Your task to perform on an android device: Search for usb-b on bestbuy, select the first entry, add it to the cart, then select checkout. Image 0: 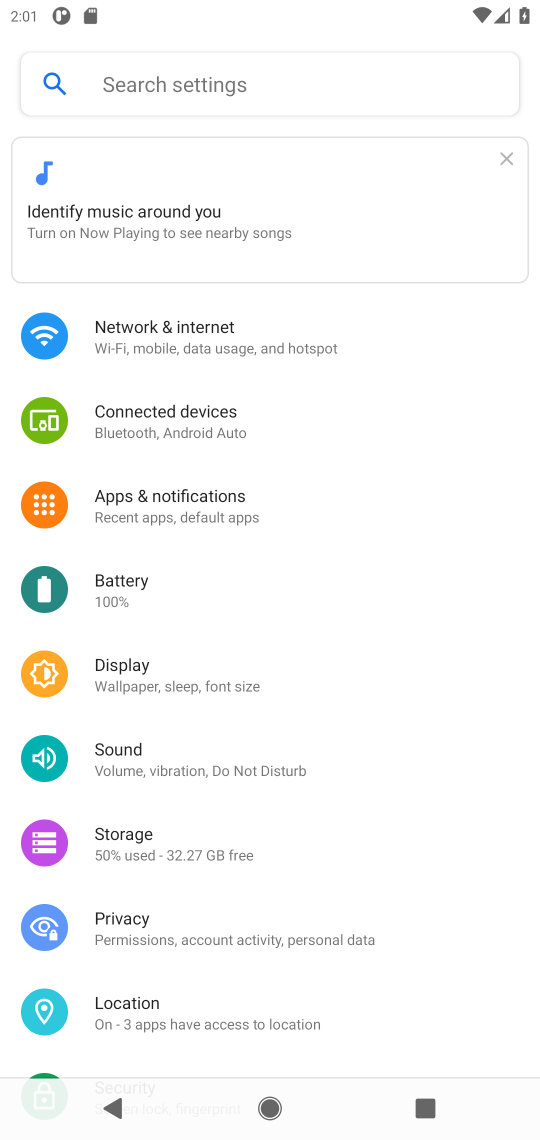
Step 0: press home button
Your task to perform on an android device: Search for usb-b on bestbuy, select the first entry, add it to the cart, then select checkout. Image 1: 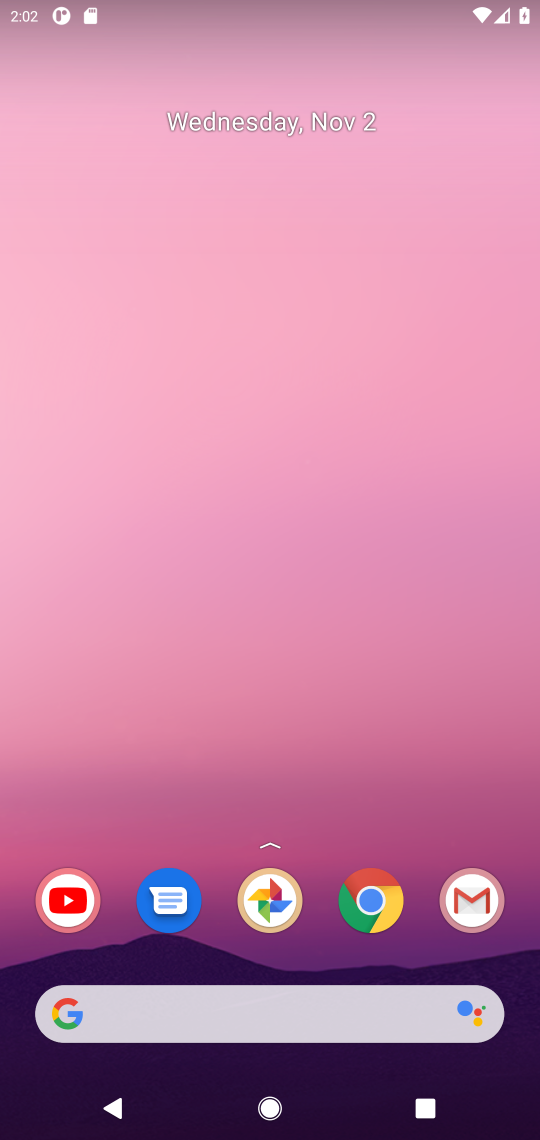
Step 1: click (383, 906)
Your task to perform on an android device: Search for usb-b on bestbuy, select the first entry, add it to the cart, then select checkout. Image 2: 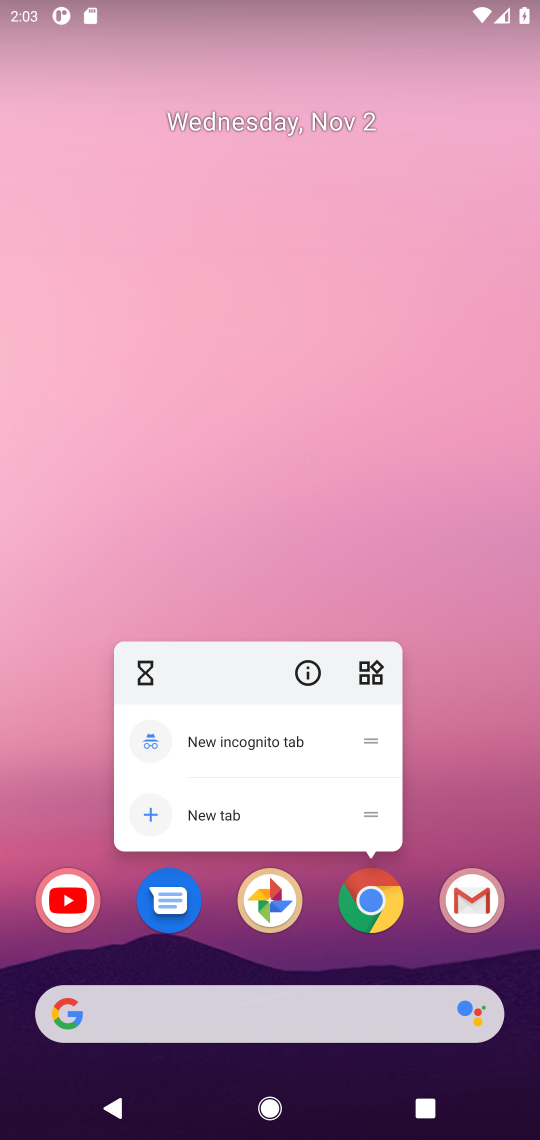
Step 2: click (376, 905)
Your task to perform on an android device: Search for usb-b on bestbuy, select the first entry, add it to the cart, then select checkout. Image 3: 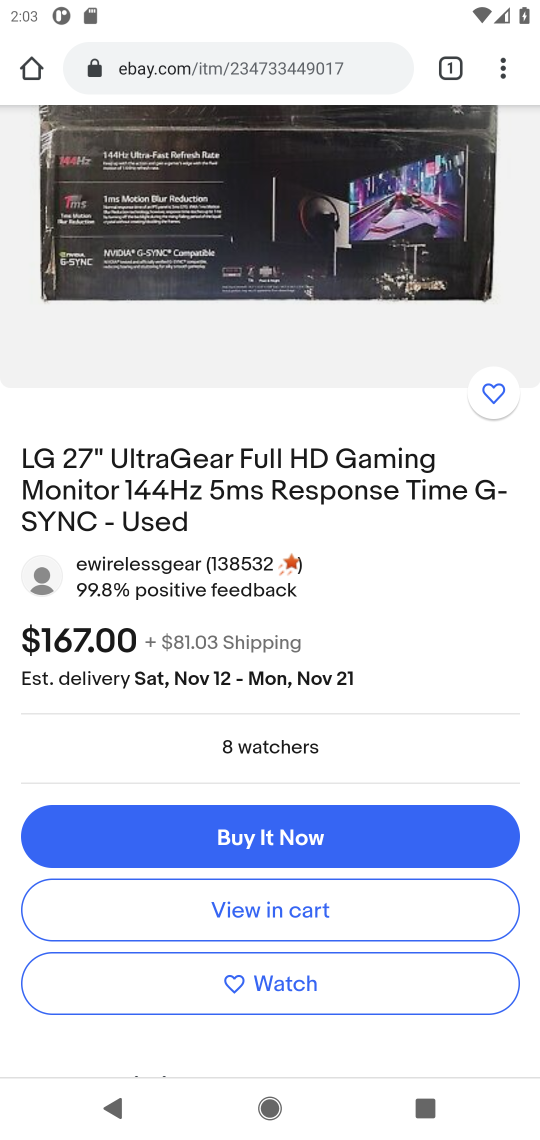
Step 3: click (251, 59)
Your task to perform on an android device: Search for usb-b on bestbuy, select the first entry, add it to the cart, then select checkout. Image 4: 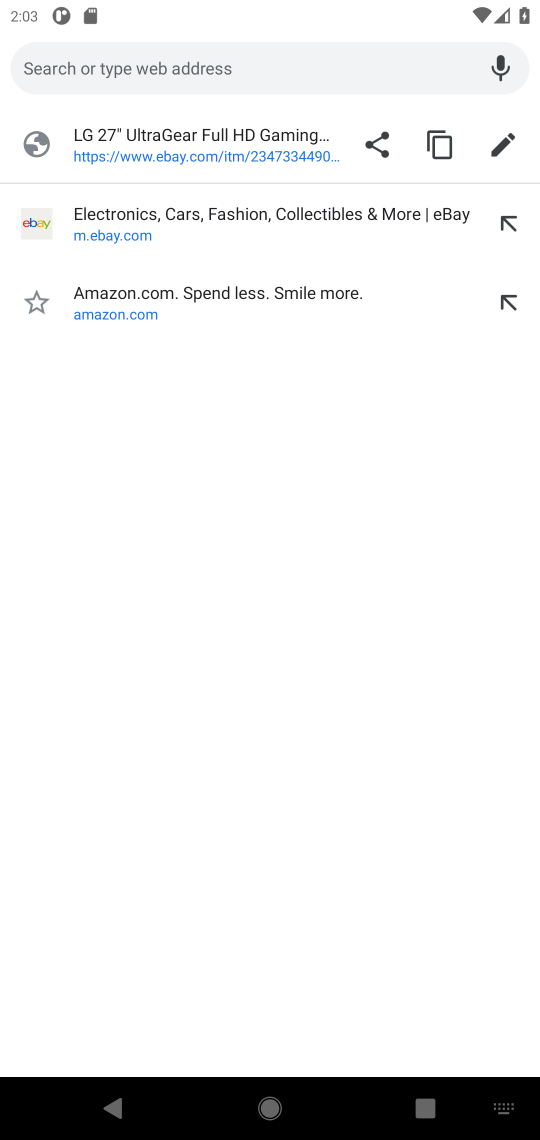
Step 4: type "bestbuy"
Your task to perform on an android device: Search for usb-b on bestbuy, select the first entry, add it to the cart, then select checkout. Image 5: 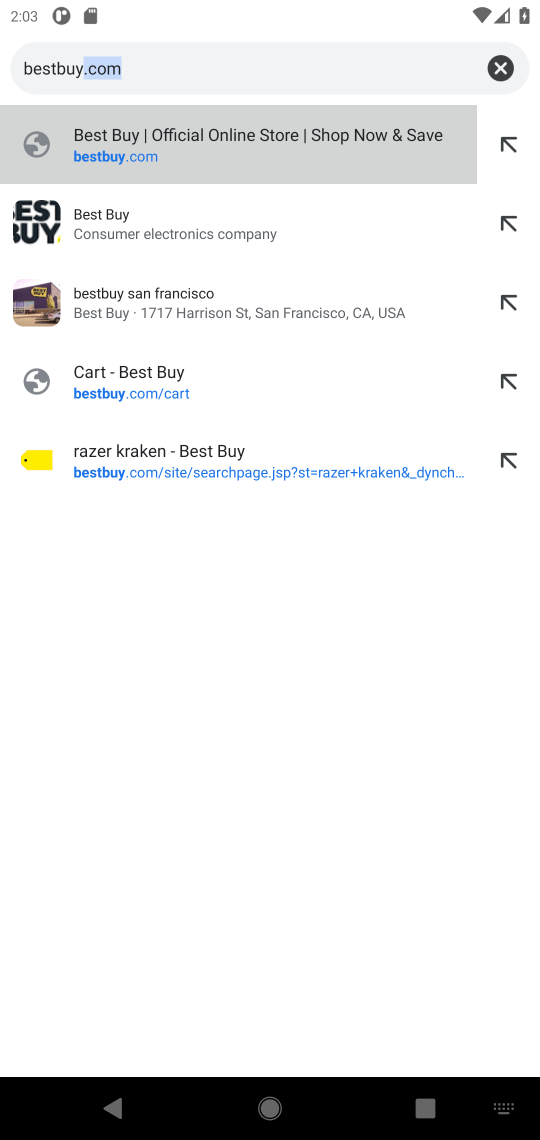
Step 5: click (84, 232)
Your task to perform on an android device: Search for usb-b on bestbuy, select the first entry, add it to the cart, then select checkout. Image 6: 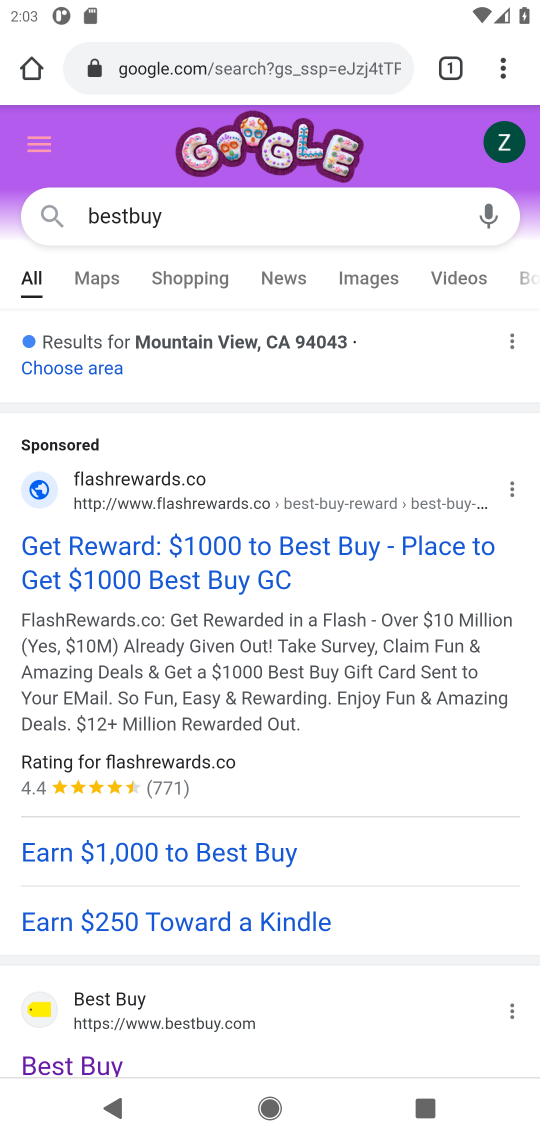
Step 6: drag from (213, 1001) to (201, 390)
Your task to perform on an android device: Search for usb-b on bestbuy, select the first entry, add it to the cart, then select checkout. Image 7: 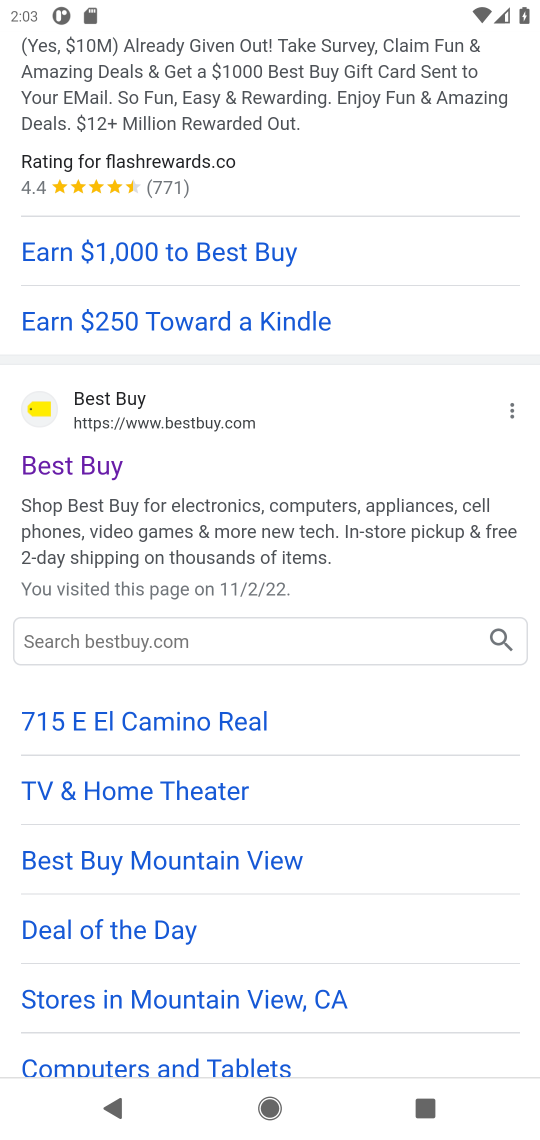
Step 7: click (73, 463)
Your task to perform on an android device: Search for usb-b on bestbuy, select the first entry, add it to the cart, then select checkout. Image 8: 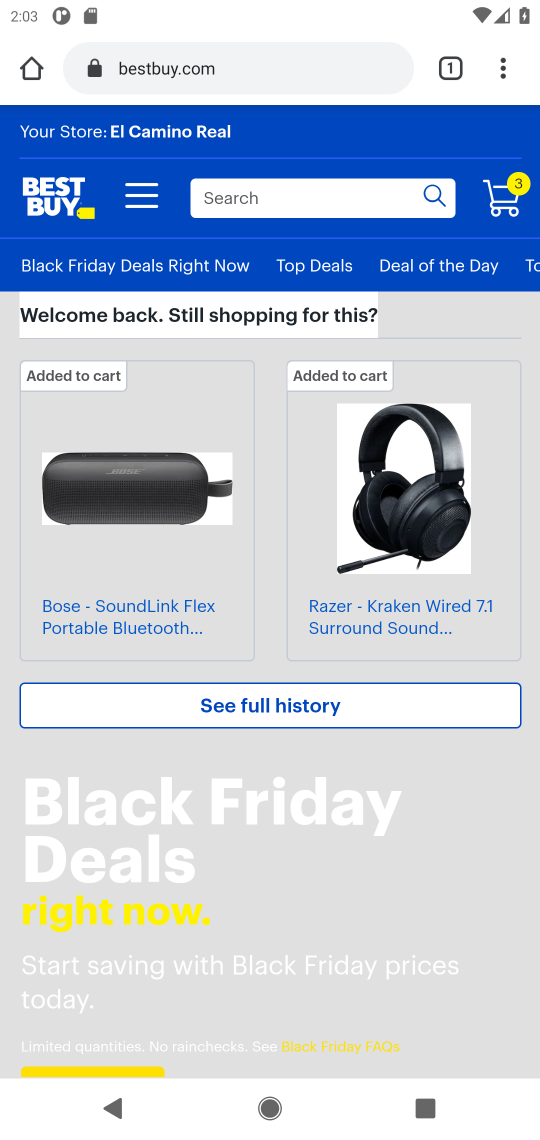
Step 8: click (265, 209)
Your task to perform on an android device: Search for usb-b on bestbuy, select the first entry, add it to the cart, then select checkout. Image 9: 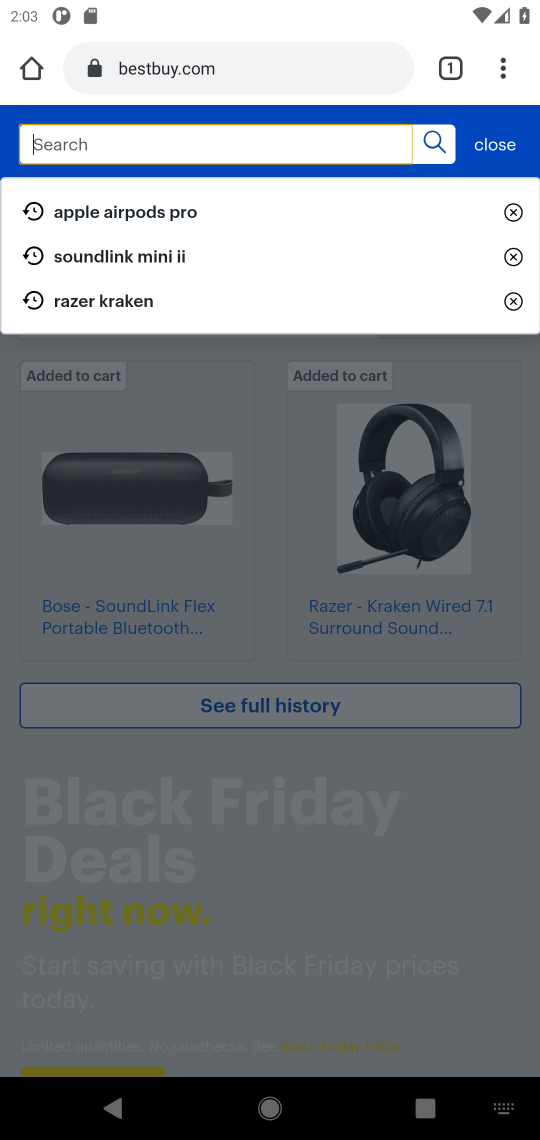
Step 9: type "usb - b"
Your task to perform on an android device: Search for usb-b on bestbuy, select the first entry, add it to the cart, then select checkout. Image 10: 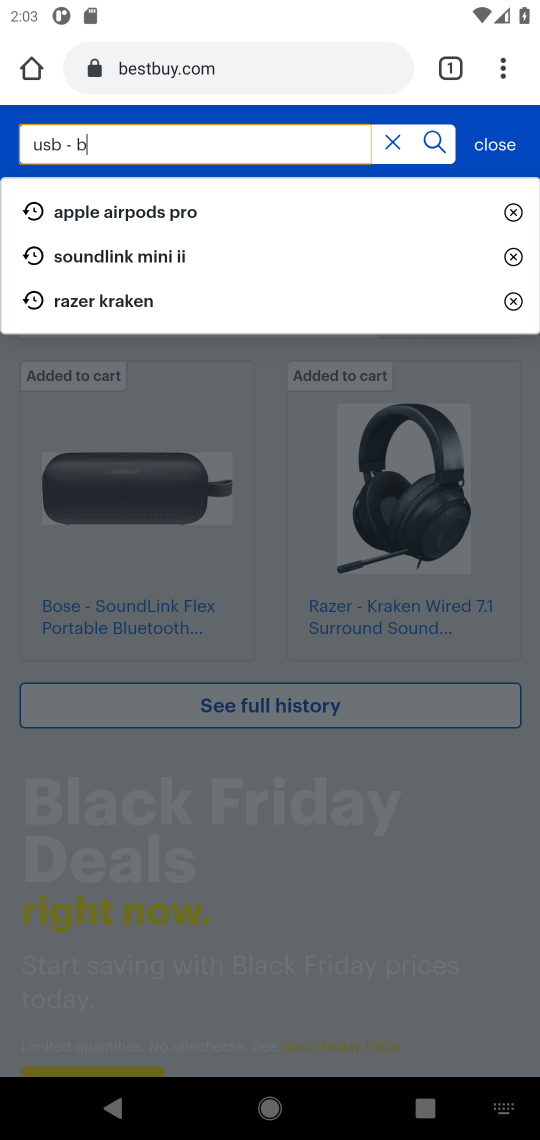
Step 10: type ""
Your task to perform on an android device: Search for usb-b on bestbuy, select the first entry, add it to the cart, then select checkout. Image 11: 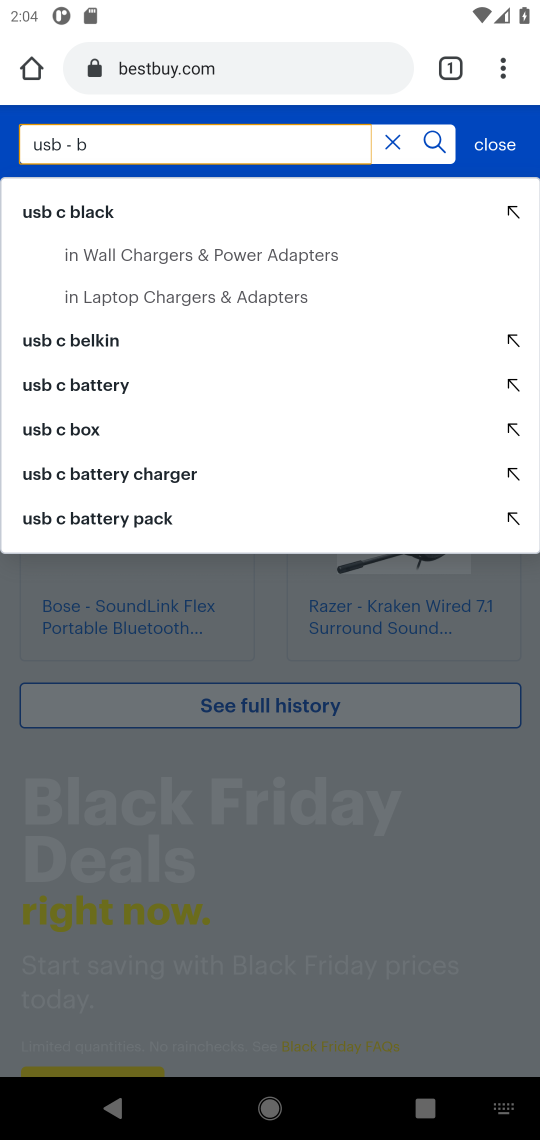
Step 11: click (43, 214)
Your task to perform on an android device: Search for usb-b on bestbuy, select the first entry, add it to the cart, then select checkout. Image 12: 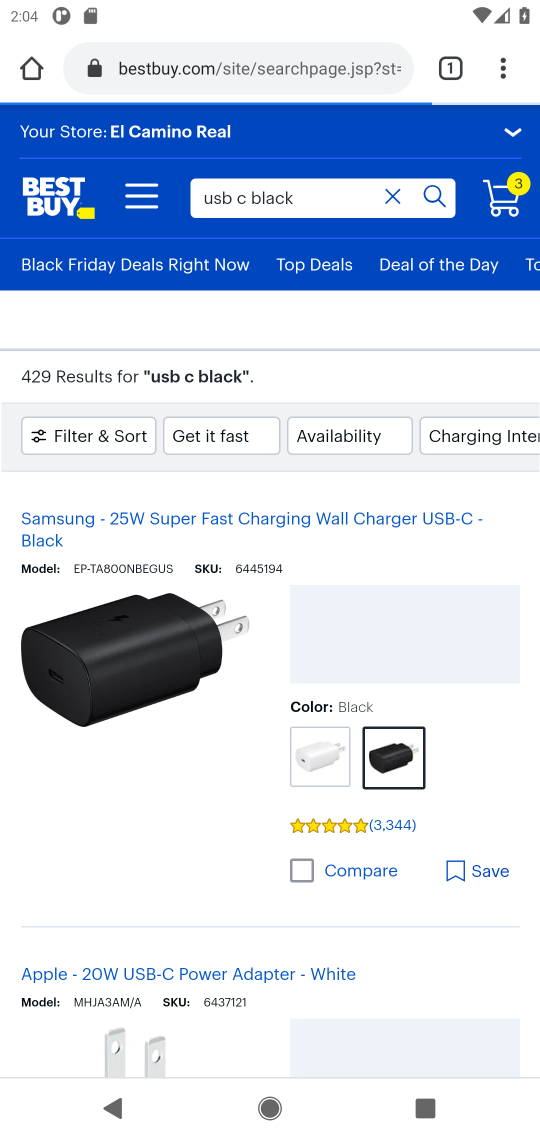
Step 12: drag from (152, 796) to (499, 186)
Your task to perform on an android device: Search for usb-b on bestbuy, select the first entry, add it to the cart, then select checkout. Image 13: 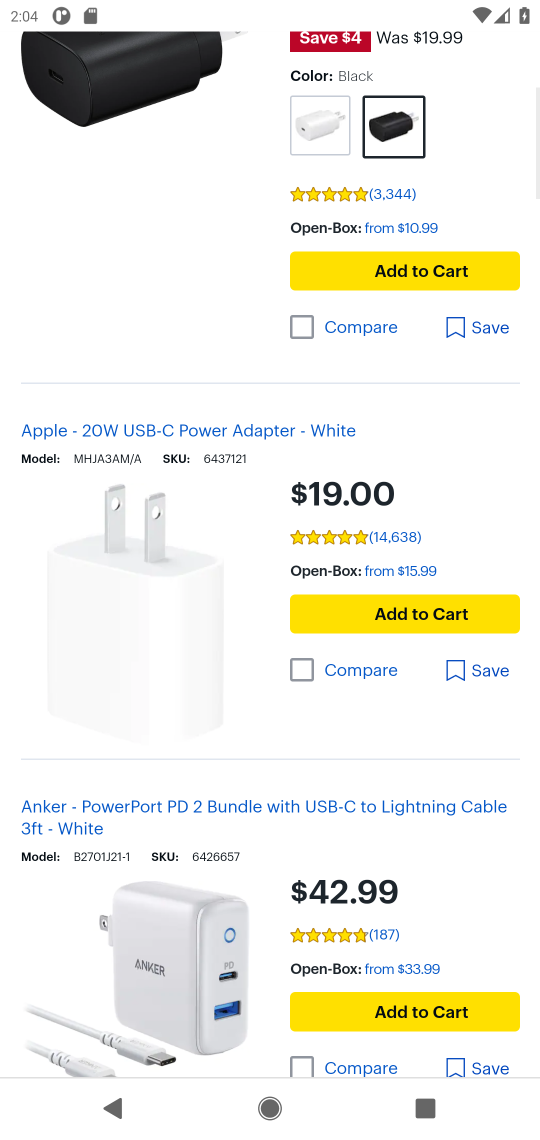
Step 13: drag from (339, 882) to (385, 75)
Your task to perform on an android device: Search for usb-b on bestbuy, select the first entry, add it to the cart, then select checkout. Image 14: 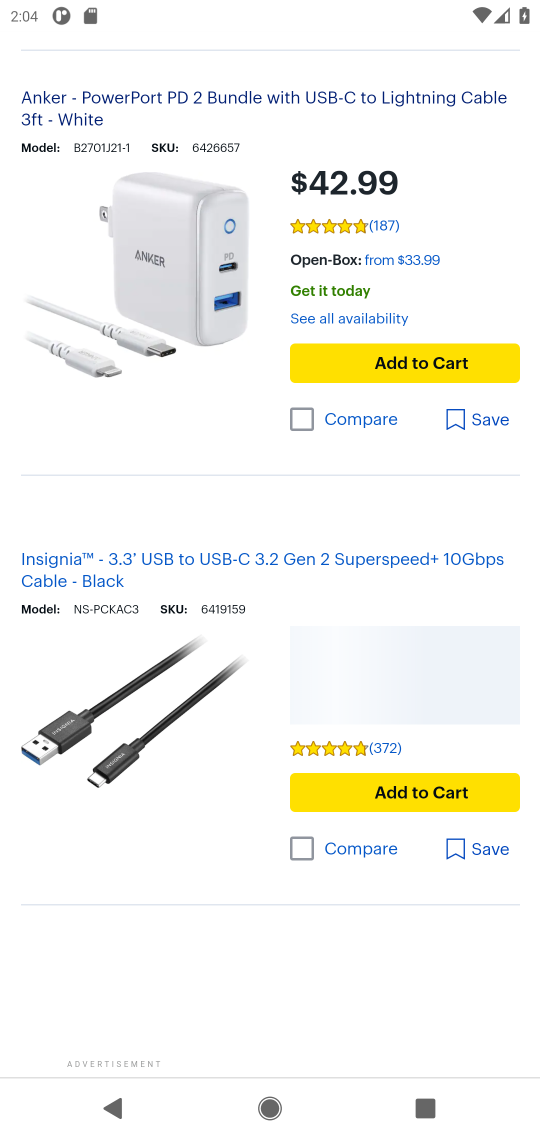
Step 14: drag from (214, 878) to (392, 192)
Your task to perform on an android device: Search for usb-b on bestbuy, select the first entry, add it to the cart, then select checkout. Image 15: 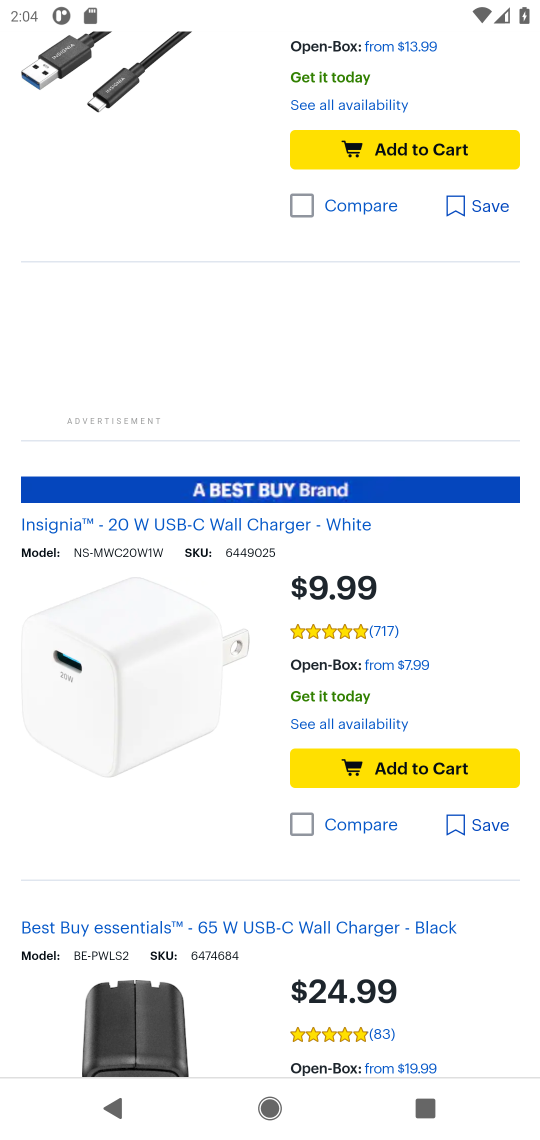
Step 15: click (253, 992)
Your task to perform on an android device: Search for usb-b on bestbuy, select the first entry, add it to the cart, then select checkout. Image 16: 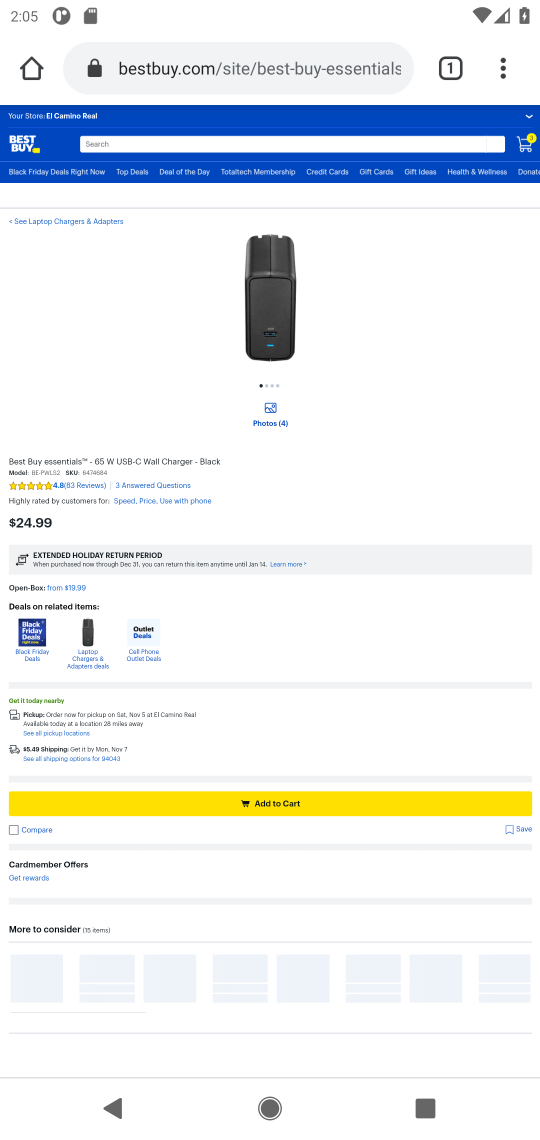
Step 16: click (273, 825)
Your task to perform on an android device: Search for usb-b on bestbuy, select the first entry, add it to the cart, then select checkout. Image 17: 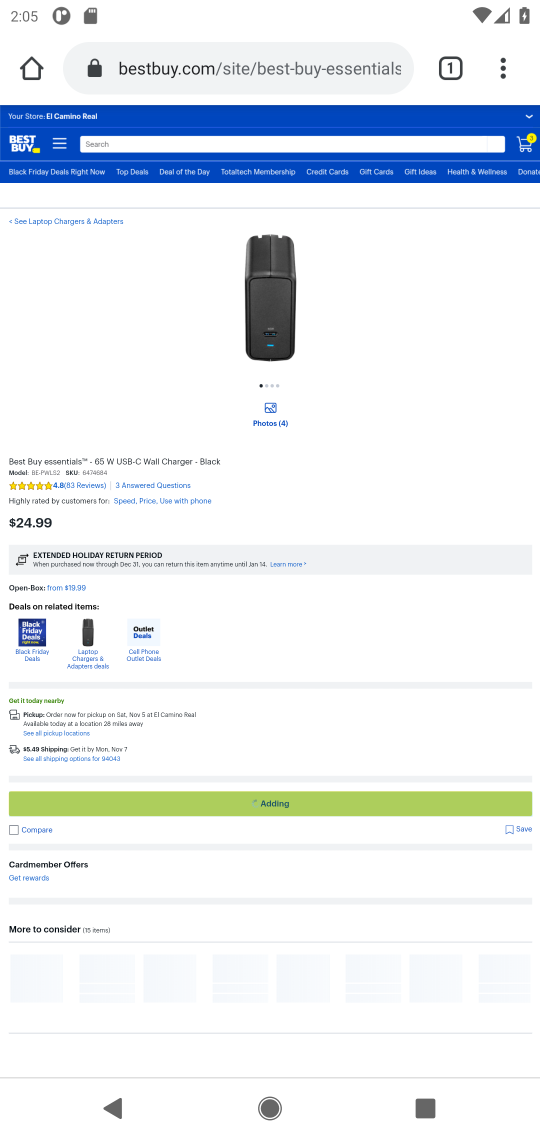
Step 17: click (271, 801)
Your task to perform on an android device: Search for usb-b on bestbuy, select the first entry, add it to the cart, then select checkout. Image 18: 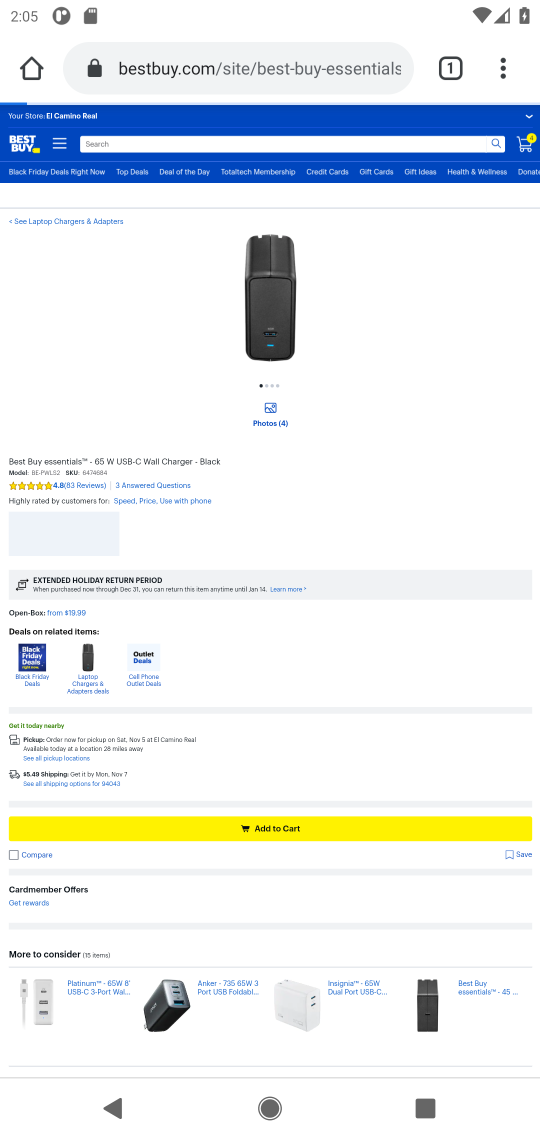
Step 18: click (264, 820)
Your task to perform on an android device: Search for usb-b on bestbuy, select the first entry, add it to the cart, then select checkout. Image 19: 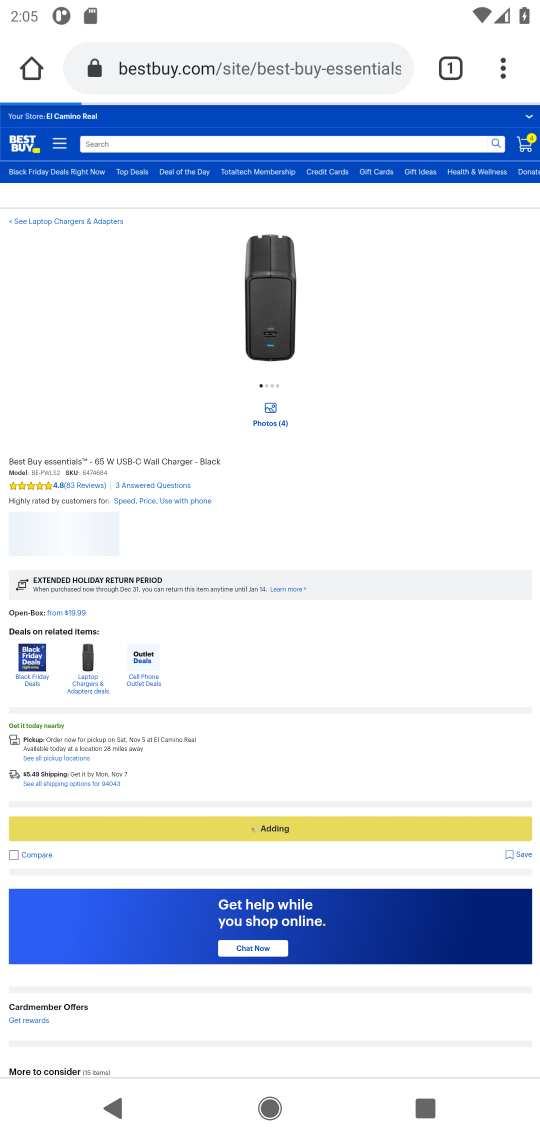
Step 19: click (537, 143)
Your task to perform on an android device: Search for usb-b on bestbuy, select the first entry, add it to the cart, then select checkout. Image 20: 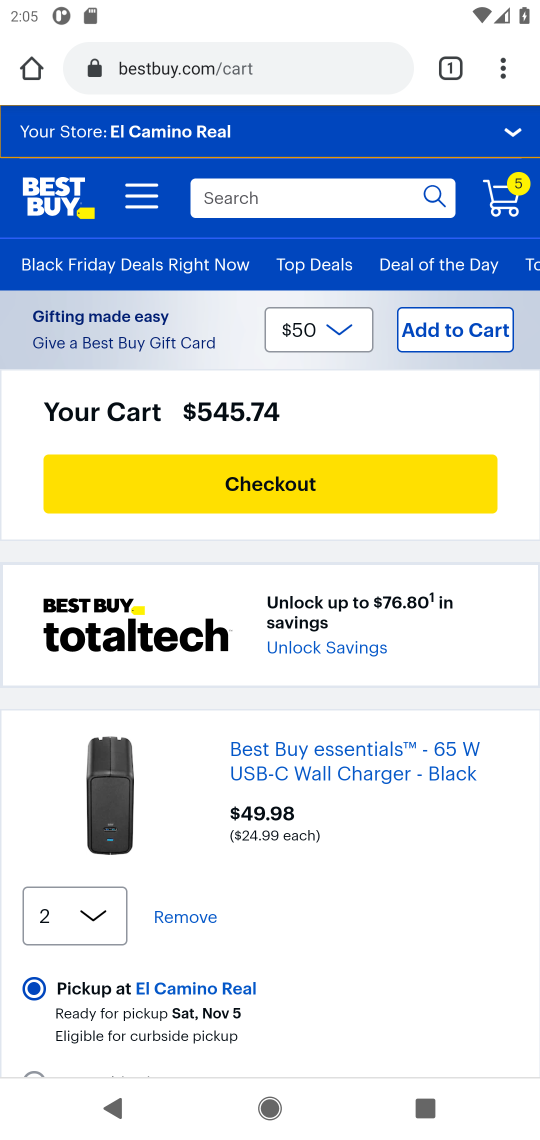
Step 20: click (277, 486)
Your task to perform on an android device: Search for usb-b on bestbuy, select the first entry, add it to the cart, then select checkout. Image 21: 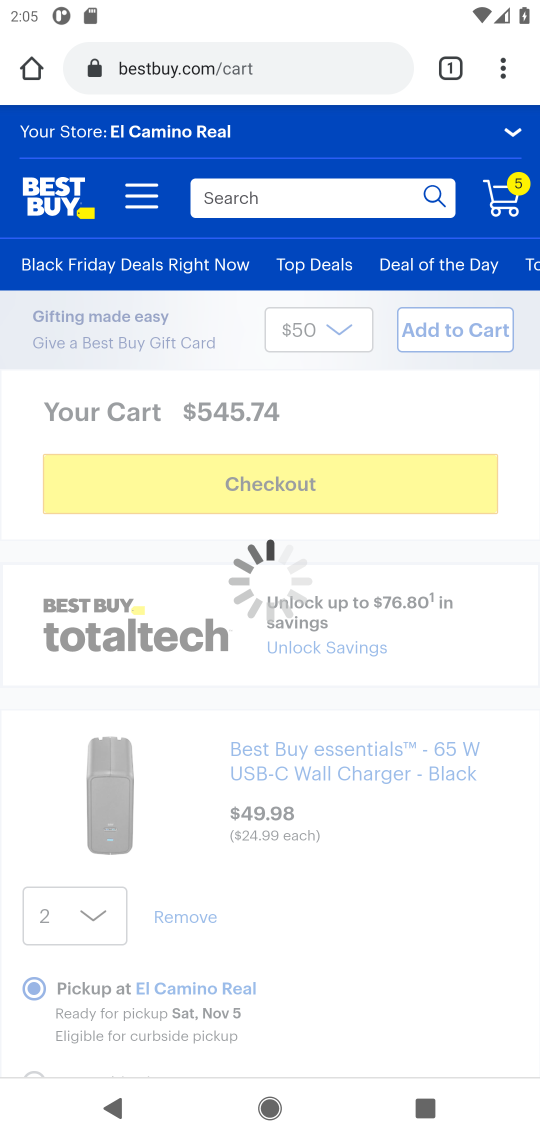
Step 21: task complete